Your task to perform on an android device: Search for seafood restaurants on Google Maps Image 0: 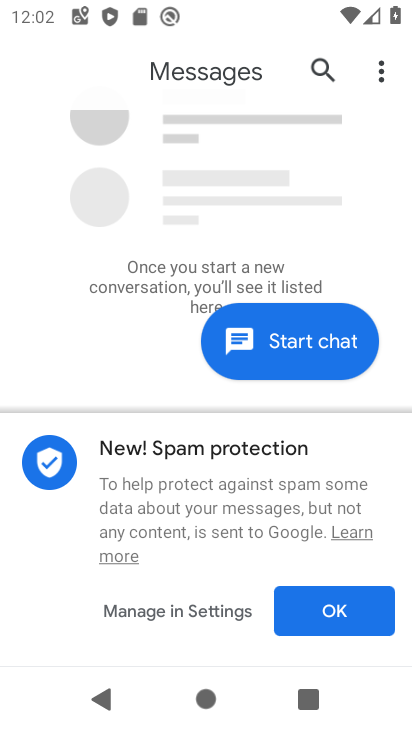
Step 0: press home button
Your task to perform on an android device: Search for seafood restaurants on Google Maps Image 1: 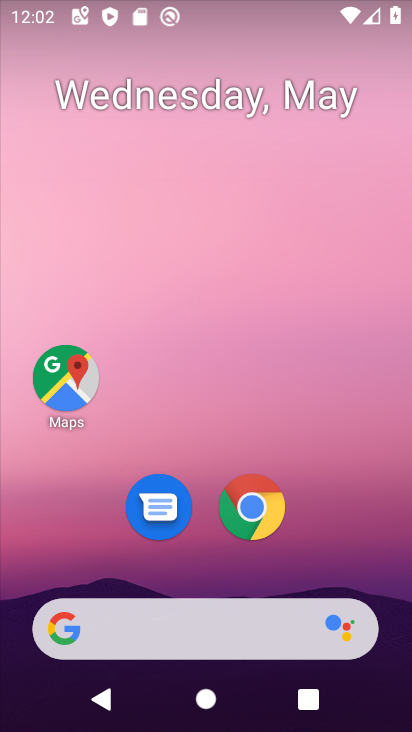
Step 1: drag from (303, 572) to (320, 119)
Your task to perform on an android device: Search for seafood restaurants on Google Maps Image 2: 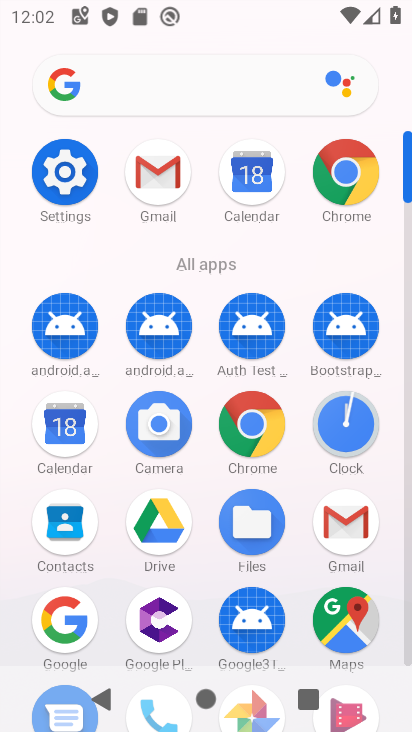
Step 2: click (326, 621)
Your task to perform on an android device: Search for seafood restaurants on Google Maps Image 3: 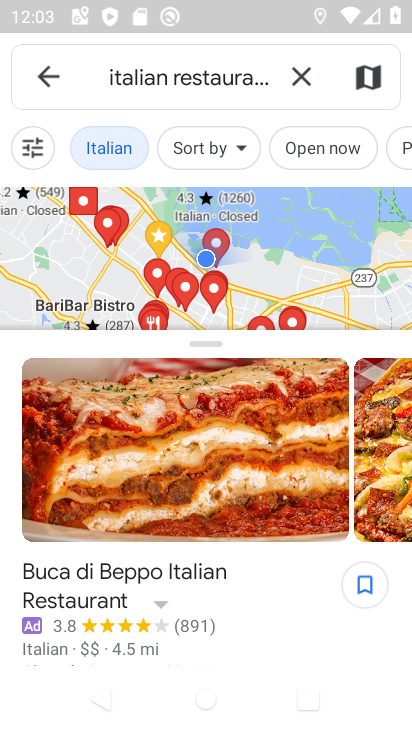
Step 3: click (305, 77)
Your task to perform on an android device: Search for seafood restaurants on Google Maps Image 4: 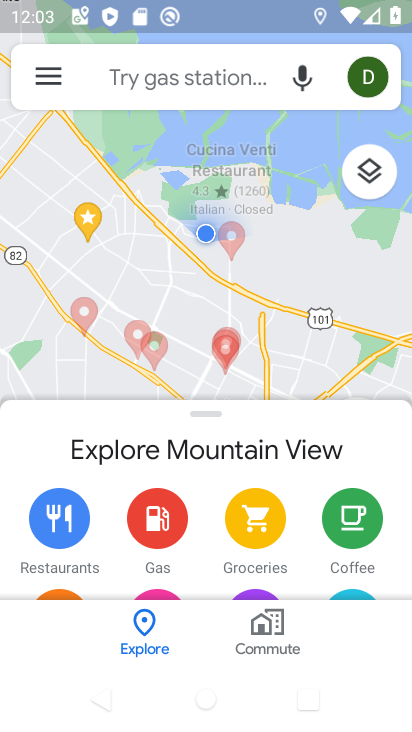
Step 4: click (230, 80)
Your task to perform on an android device: Search for seafood restaurants on Google Maps Image 5: 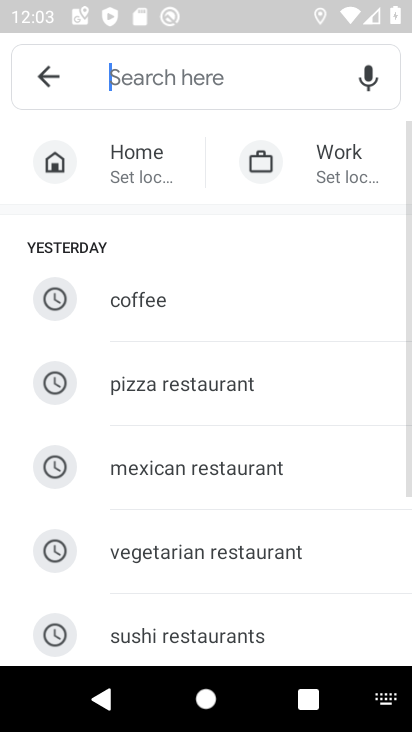
Step 5: drag from (200, 571) to (243, 287)
Your task to perform on an android device: Search for seafood restaurants on Google Maps Image 6: 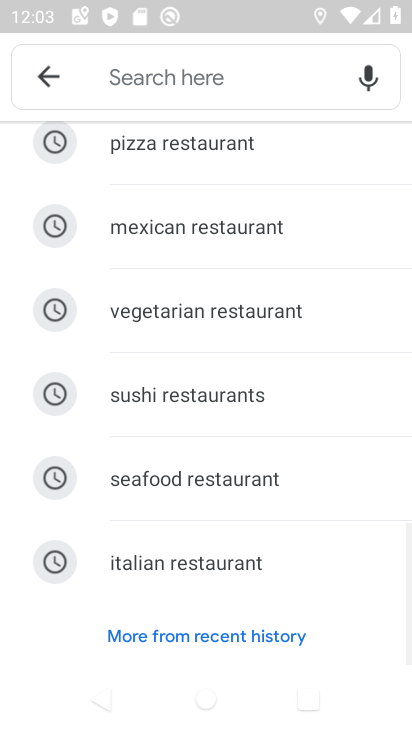
Step 6: click (253, 476)
Your task to perform on an android device: Search for seafood restaurants on Google Maps Image 7: 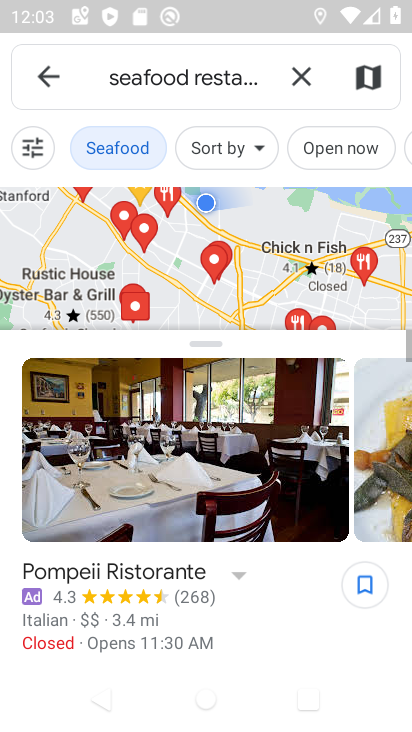
Step 7: task complete